Your task to perform on an android device: snooze an email in the gmail app Image 0: 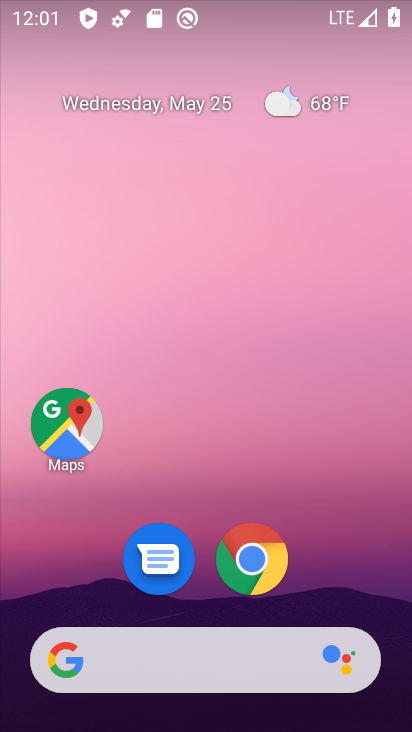
Step 0: drag from (385, 608) to (335, 89)
Your task to perform on an android device: snooze an email in the gmail app Image 1: 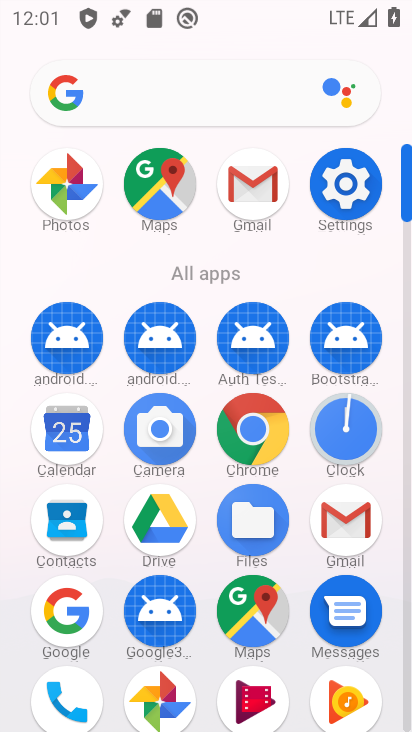
Step 1: click (404, 701)
Your task to perform on an android device: snooze an email in the gmail app Image 2: 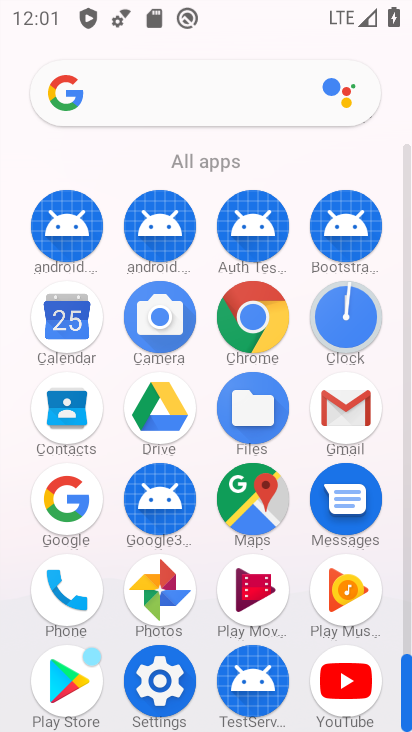
Step 2: click (343, 408)
Your task to perform on an android device: snooze an email in the gmail app Image 3: 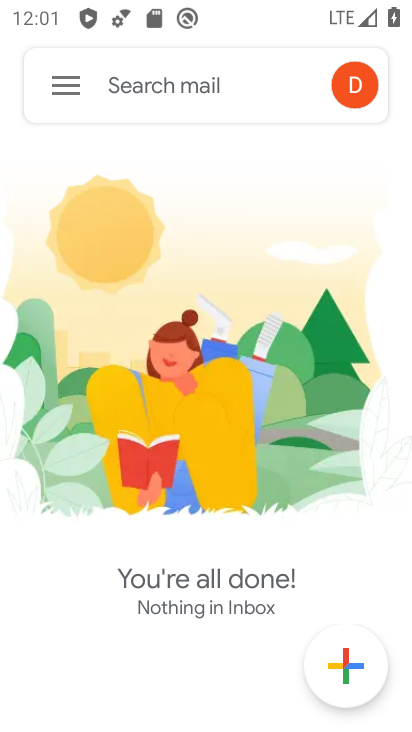
Step 3: click (63, 84)
Your task to perform on an android device: snooze an email in the gmail app Image 4: 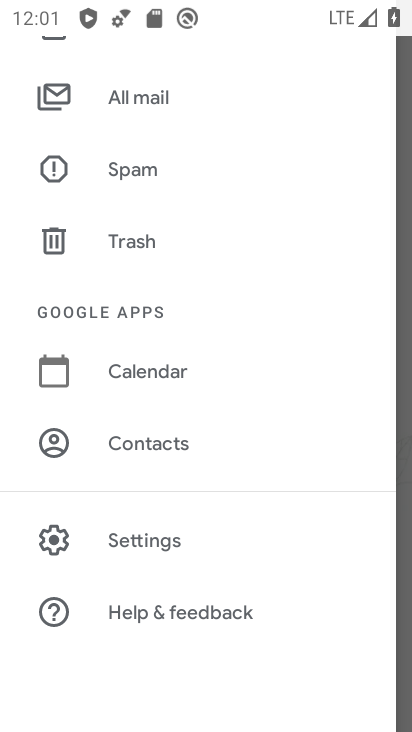
Step 4: click (129, 105)
Your task to perform on an android device: snooze an email in the gmail app Image 5: 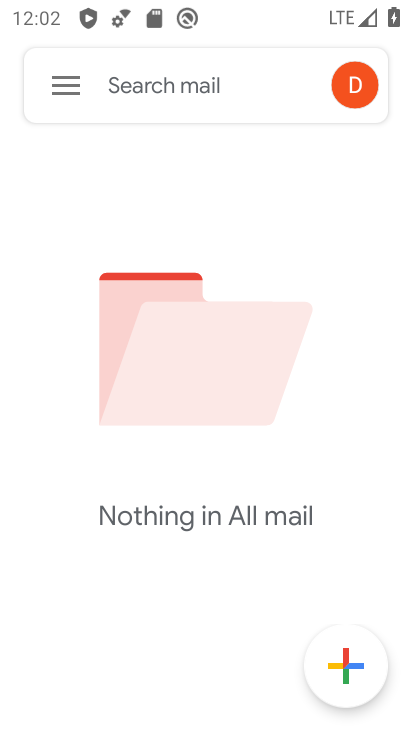
Step 5: task complete